Your task to perform on an android device: create a new album in the google photos Image 0: 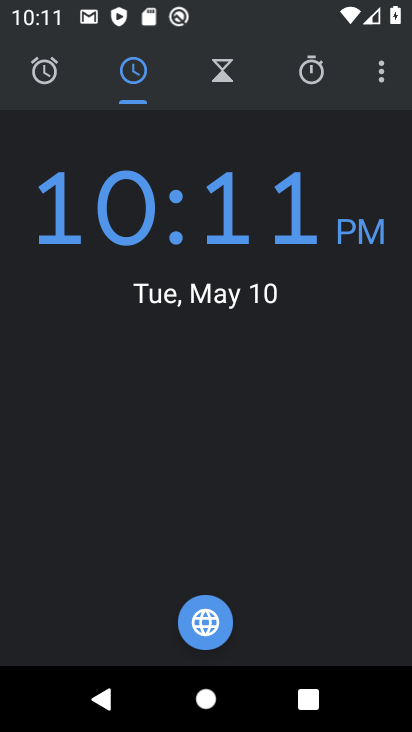
Step 0: press home button
Your task to perform on an android device: create a new album in the google photos Image 1: 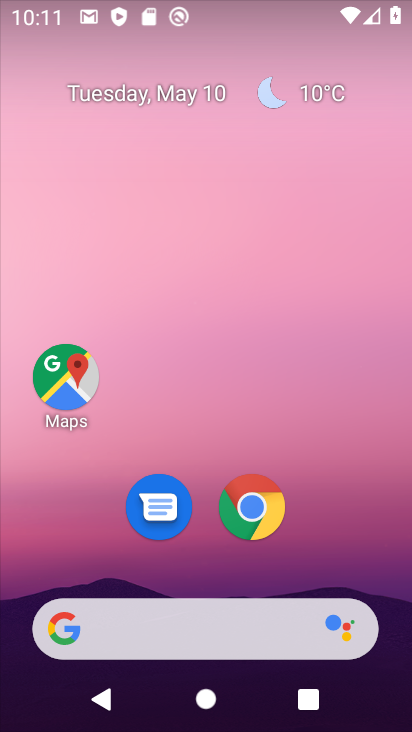
Step 1: drag from (320, 524) to (277, 168)
Your task to perform on an android device: create a new album in the google photos Image 2: 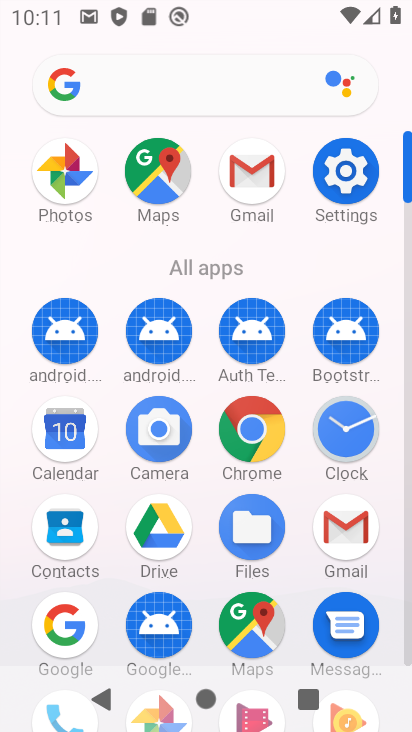
Step 2: drag from (205, 540) to (206, 199)
Your task to perform on an android device: create a new album in the google photos Image 3: 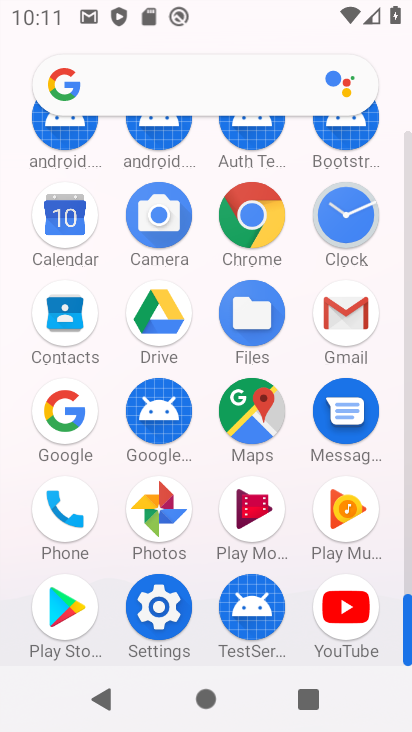
Step 3: click (173, 506)
Your task to perform on an android device: create a new album in the google photos Image 4: 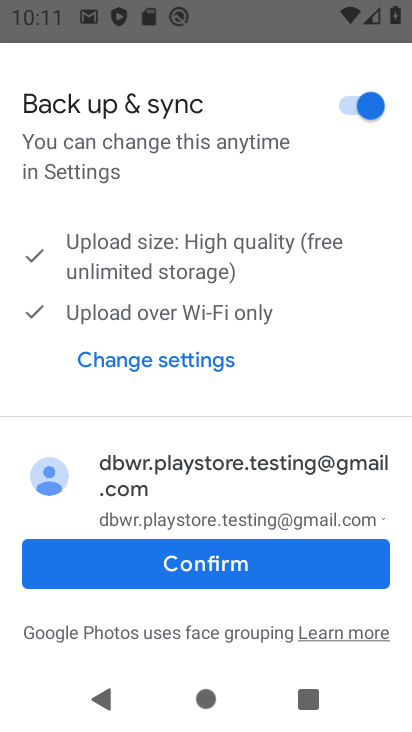
Step 4: click (272, 573)
Your task to perform on an android device: create a new album in the google photos Image 5: 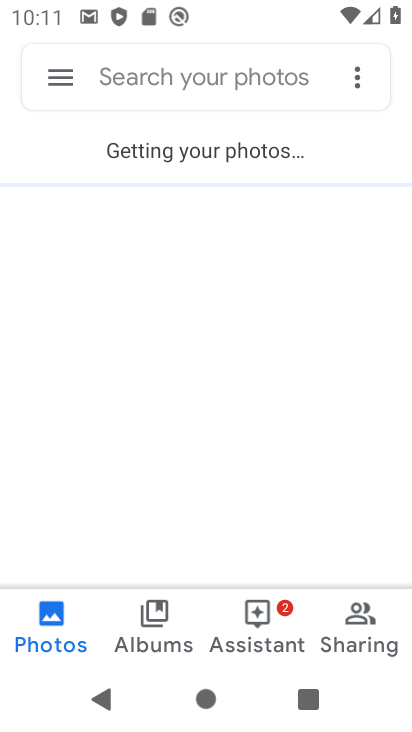
Step 5: click (356, 78)
Your task to perform on an android device: create a new album in the google photos Image 6: 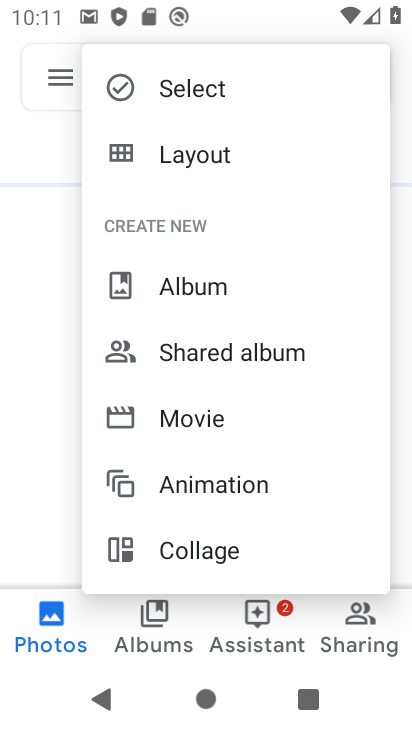
Step 6: click (220, 276)
Your task to perform on an android device: create a new album in the google photos Image 7: 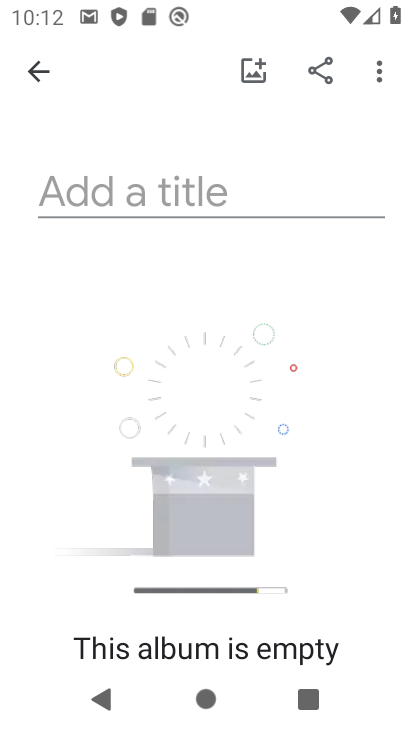
Step 7: click (195, 189)
Your task to perform on an android device: create a new album in the google photos Image 8: 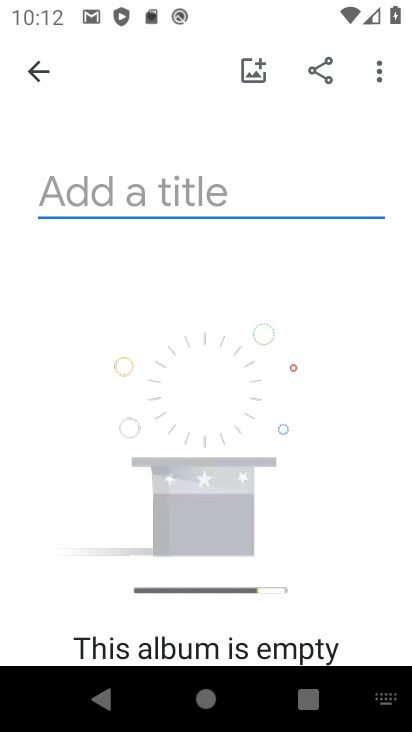
Step 8: type "g"
Your task to perform on an android device: create a new album in the google photos Image 9: 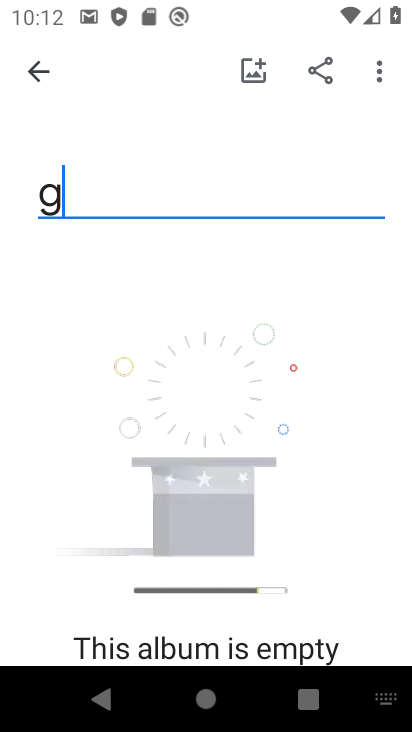
Step 9: click (256, 66)
Your task to perform on an android device: create a new album in the google photos Image 10: 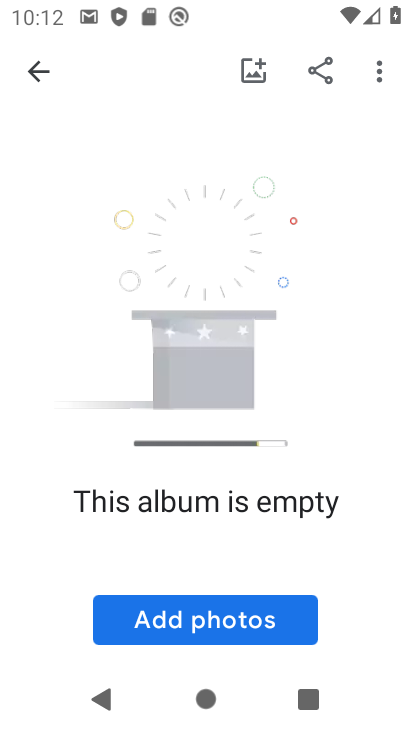
Step 10: click (212, 626)
Your task to perform on an android device: create a new album in the google photos Image 11: 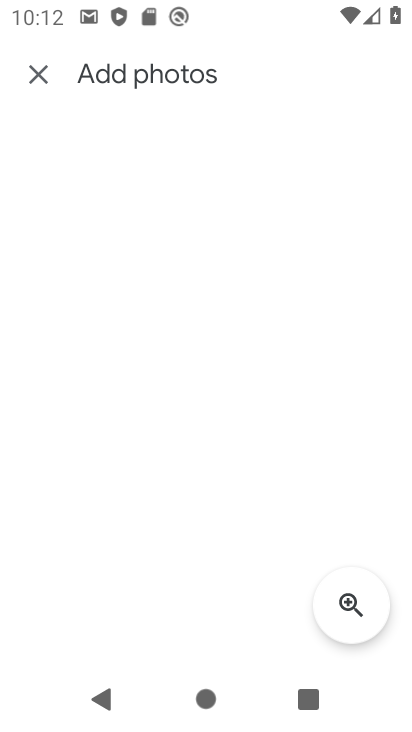
Step 11: task complete